Your task to perform on an android device: turn off notifications settings in the gmail app Image 0: 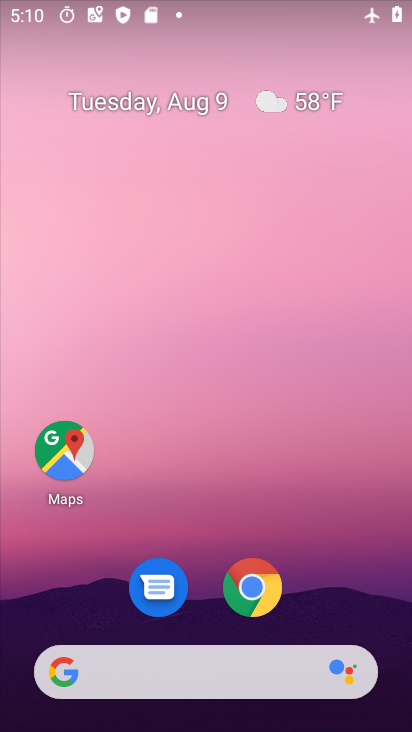
Step 0: drag from (277, 651) to (270, 7)
Your task to perform on an android device: turn off notifications settings in the gmail app Image 1: 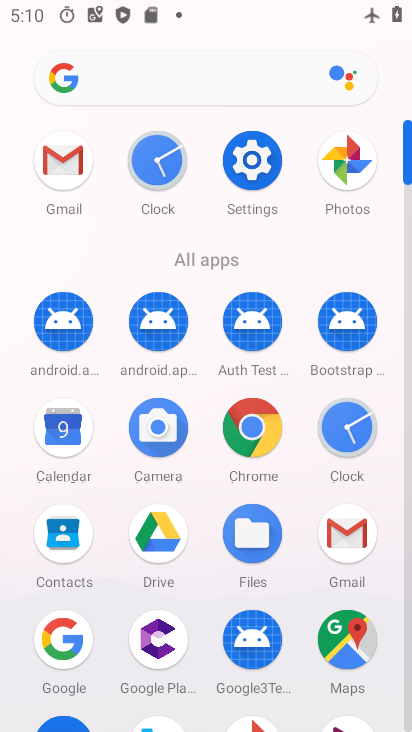
Step 1: click (337, 521)
Your task to perform on an android device: turn off notifications settings in the gmail app Image 2: 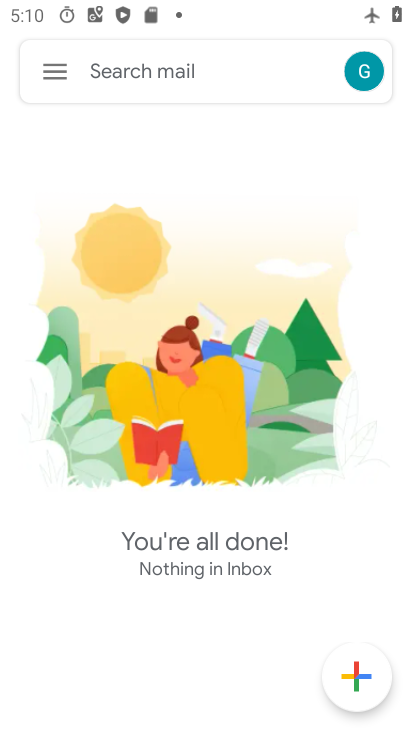
Step 2: click (57, 59)
Your task to perform on an android device: turn off notifications settings in the gmail app Image 3: 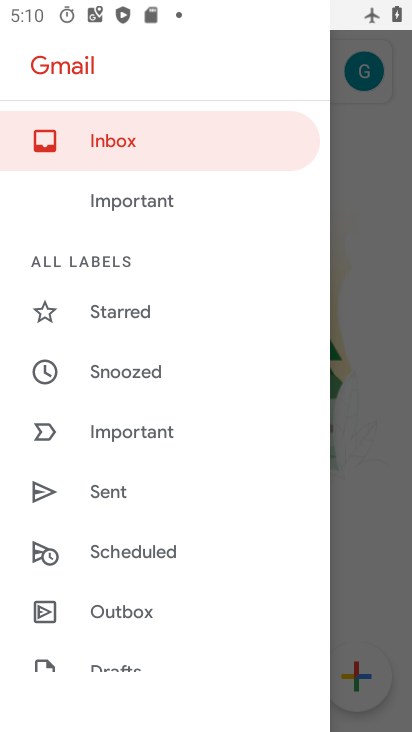
Step 3: drag from (166, 670) to (189, 85)
Your task to perform on an android device: turn off notifications settings in the gmail app Image 4: 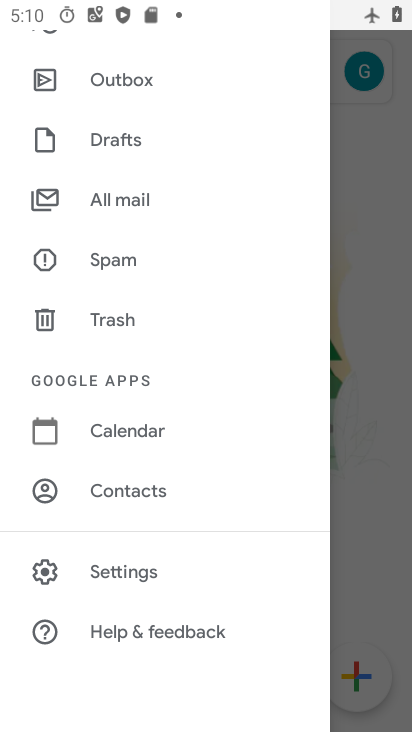
Step 4: click (101, 577)
Your task to perform on an android device: turn off notifications settings in the gmail app Image 5: 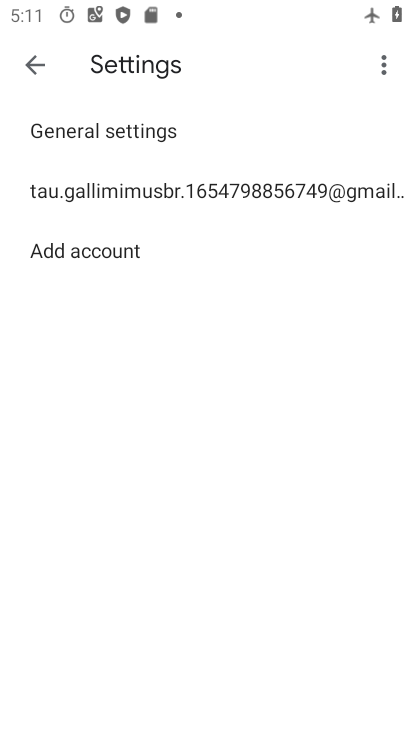
Step 5: click (128, 189)
Your task to perform on an android device: turn off notifications settings in the gmail app Image 6: 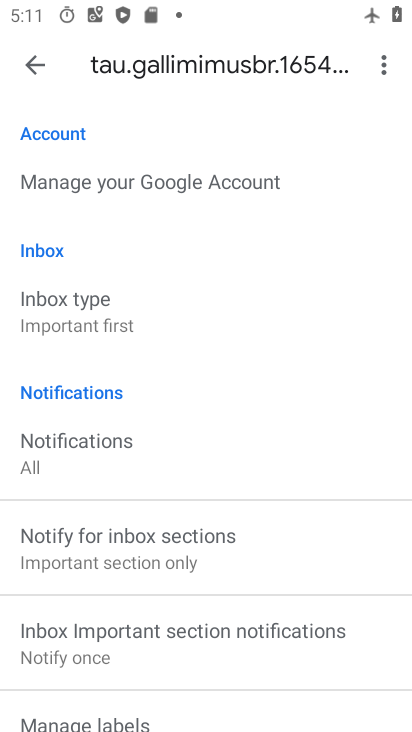
Step 6: drag from (145, 669) to (126, 465)
Your task to perform on an android device: turn off notifications settings in the gmail app Image 7: 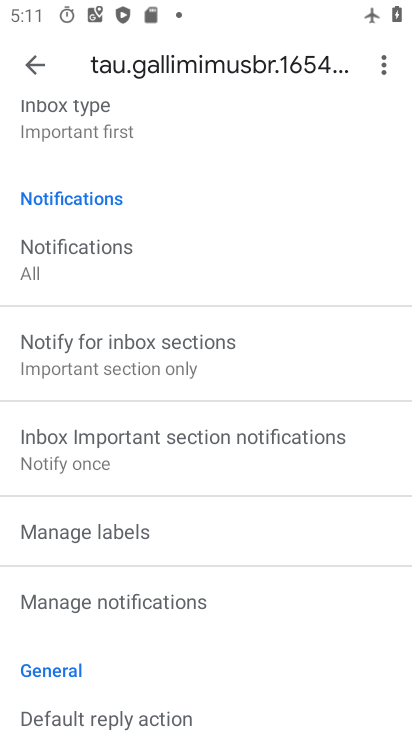
Step 7: click (152, 613)
Your task to perform on an android device: turn off notifications settings in the gmail app Image 8: 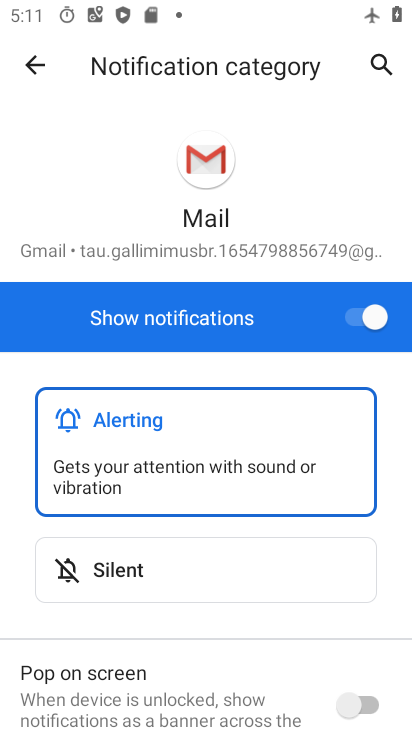
Step 8: click (365, 318)
Your task to perform on an android device: turn off notifications settings in the gmail app Image 9: 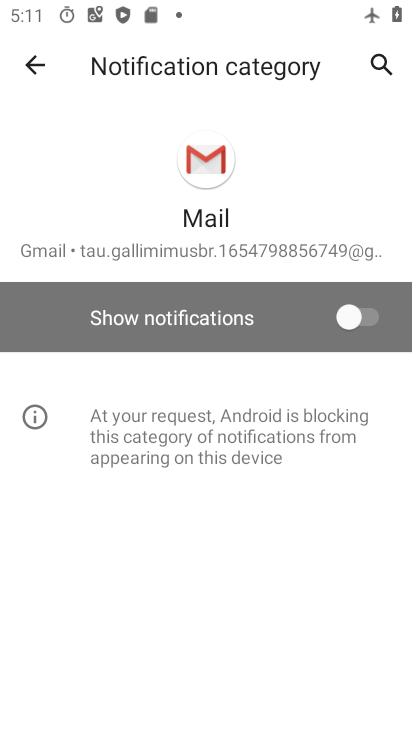
Step 9: task complete